Your task to perform on an android device: Play the last video I watched on Youtube Image 0: 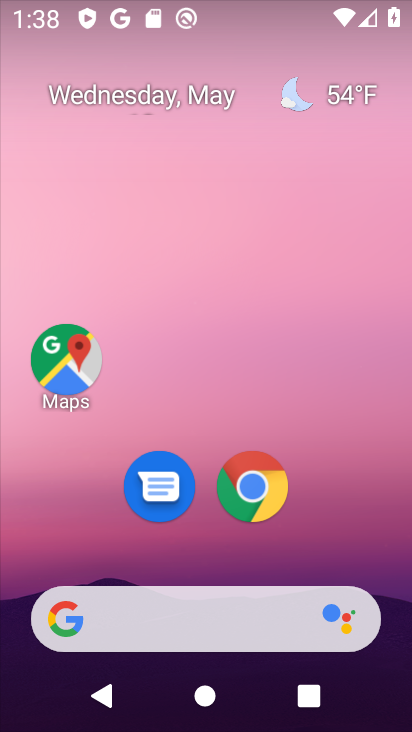
Step 0: drag from (332, 579) to (395, 70)
Your task to perform on an android device: Play the last video I watched on Youtube Image 1: 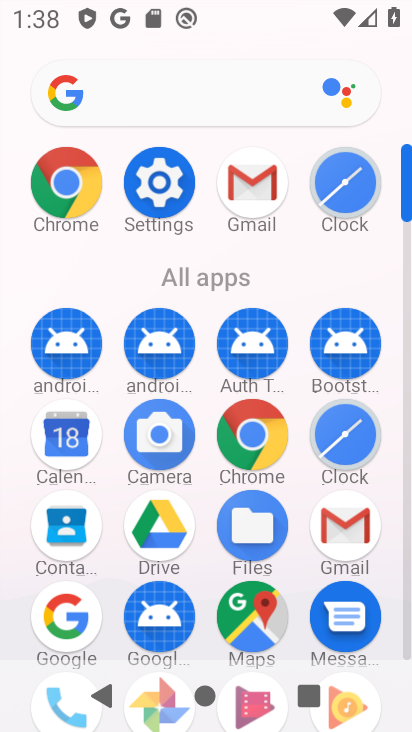
Step 1: drag from (259, 613) to (326, 54)
Your task to perform on an android device: Play the last video I watched on Youtube Image 2: 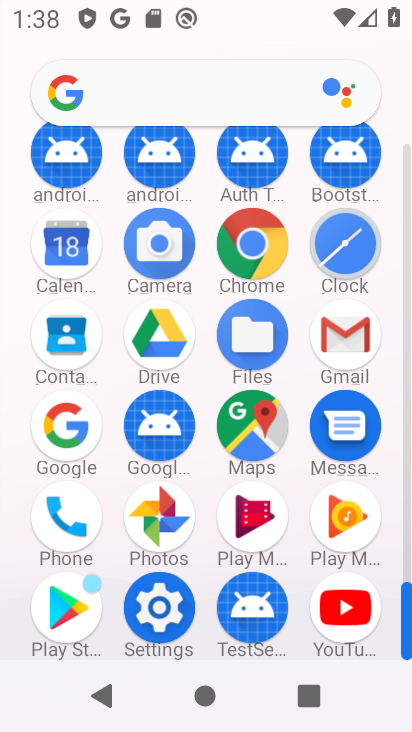
Step 2: click (357, 592)
Your task to perform on an android device: Play the last video I watched on Youtube Image 3: 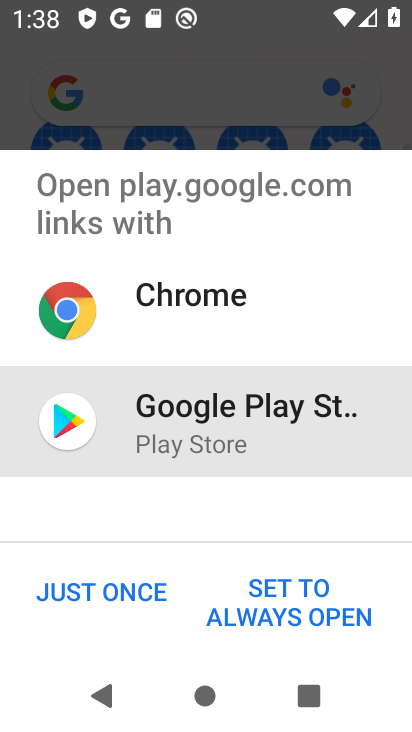
Step 3: click (107, 600)
Your task to perform on an android device: Play the last video I watched on Youtube Image 4: 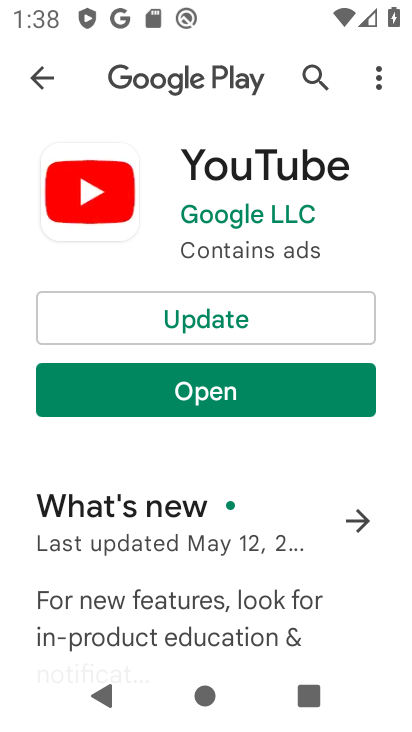
Step 4: click (95, 307)
Your task to perform on an android device: Play the last video I watched on Youtube Image 5: 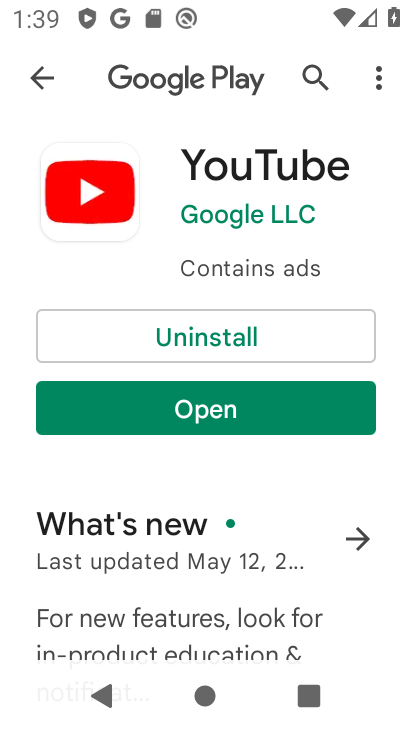
Step 5: click (366, 400)
Your task to perform on an android device: Play the last video I watched on Youtube Image 6: 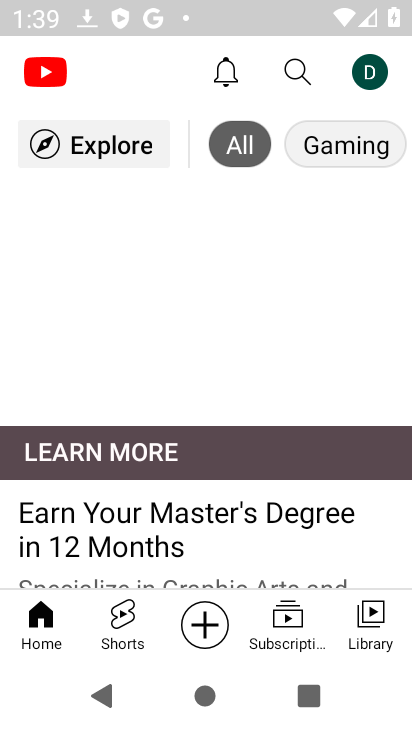
Step 6: click (354, 623)
Your task to perform on an android device: Play the last video I watched on Youtube Image 7: 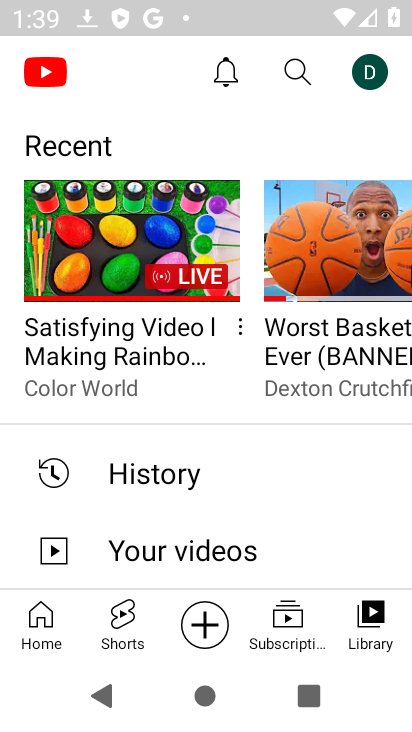
Step 7: click (178, 496)
Your task to perform on an android device: Play the last video I watched on Youtube Image 8: 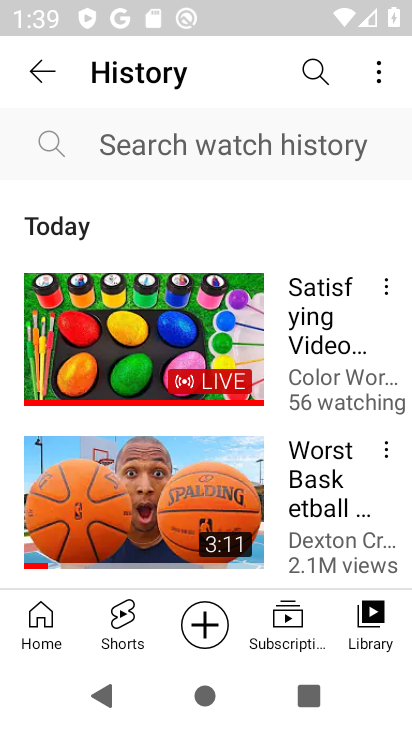
Step 8: click (345, 346)
Your task to perform on an android device: Play the last video I watched on Youtube Image 9: 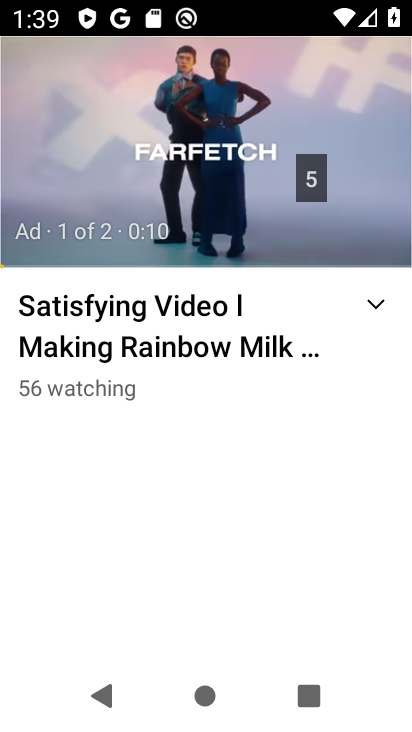
Step 9: task complete